Your task to perform on an android device: change the clock display to show seconds Image 0: 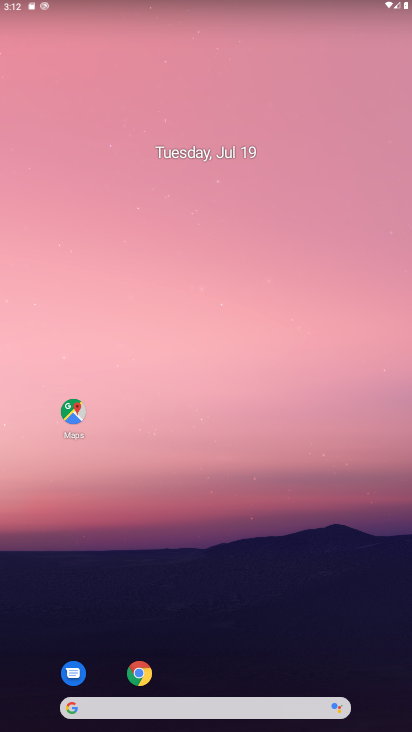
Step 0: drag from (228, 660) to (293, 15)
Your task to perform on an android device: change the clock display to show seconds Image 1: 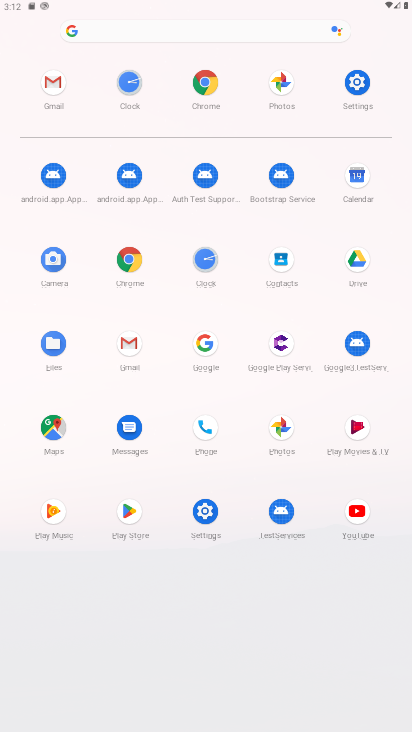
Step 1: click (204, 253)
Your task to perform on an android device: change the clock display to show seconds Image 2: 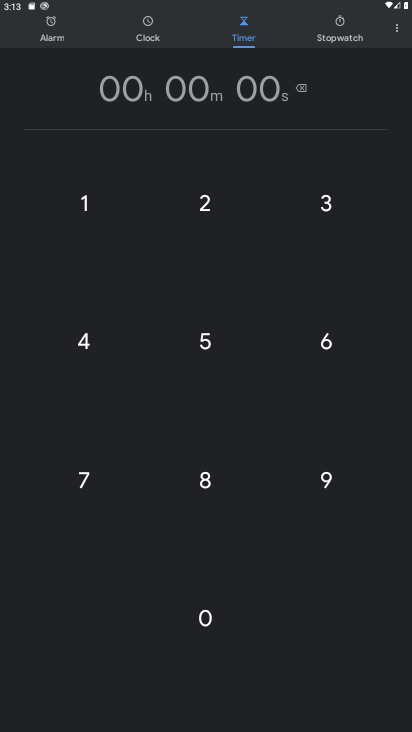
Step 2: click (399, 31)
Your task to perform on an android device: change the clock display to show seconds Image 3: 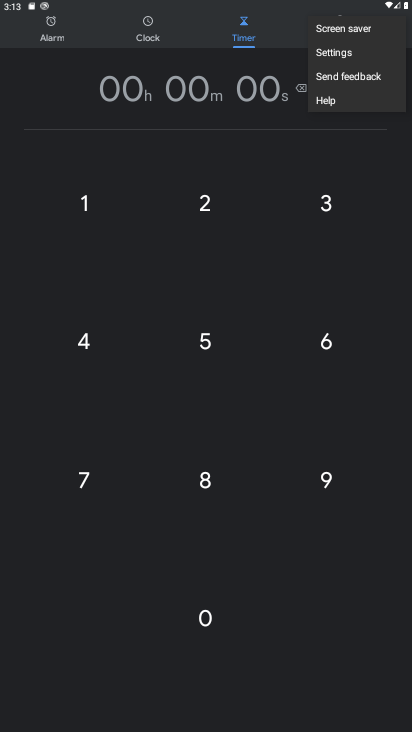
Step 3: click (333, 54)
Your task to perform on an android device: change the clock display to show seconds Image 4: 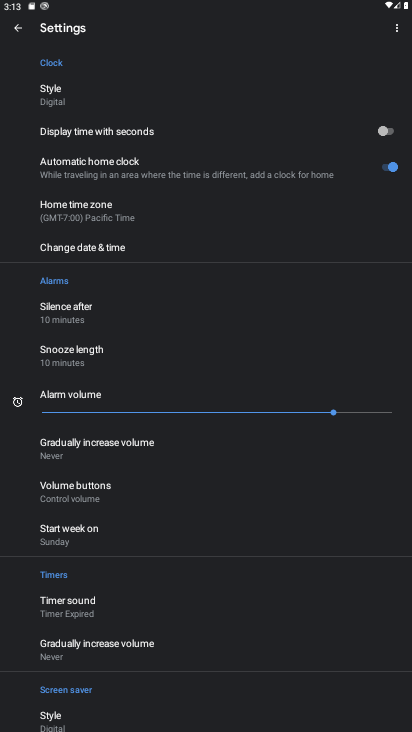
Step 4: click (62, 88)
Your task to perform on an android device: change the clock display to show seconds Image 5: 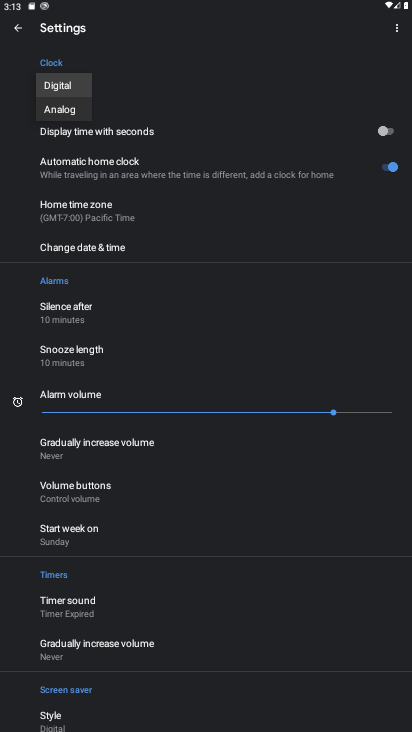
Step 5: click (69, 110)
Your task to perform on an android device: change the clock display to show seconds Image 6: 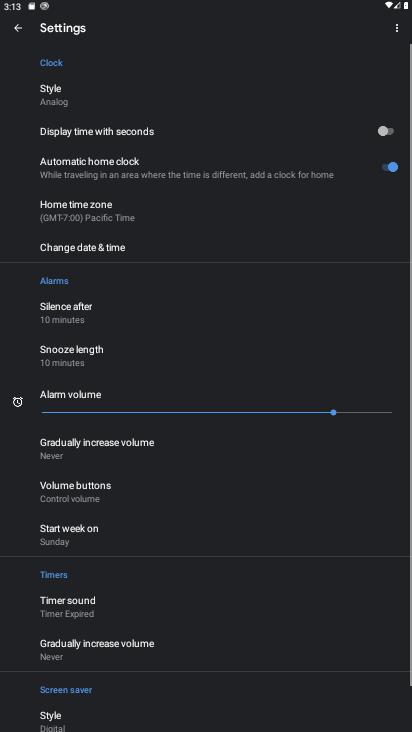
Step 6: click (378, 134)
Your task to perform on an android device: change the clock display to show seconds Image 7: 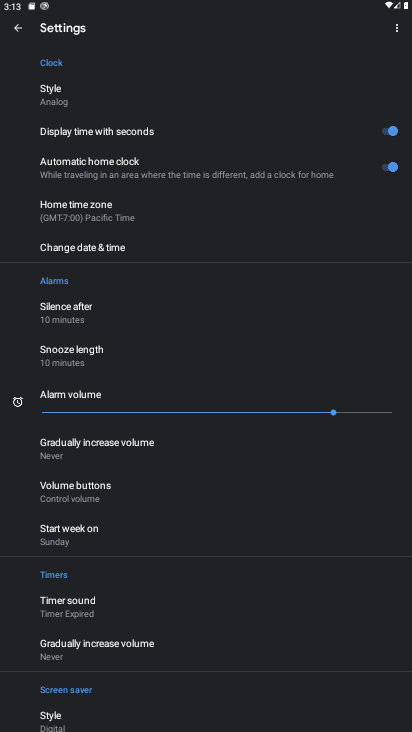
Step 7: task complete